Your task to perform on an android device: Find coffee shops on Maps Image 0: 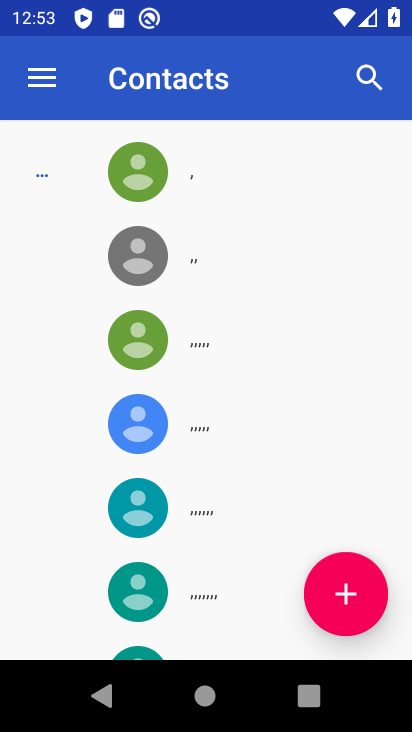
Step 0: press home button
Your task to perform on an android device: Find coffee shops on Maps Image 1: 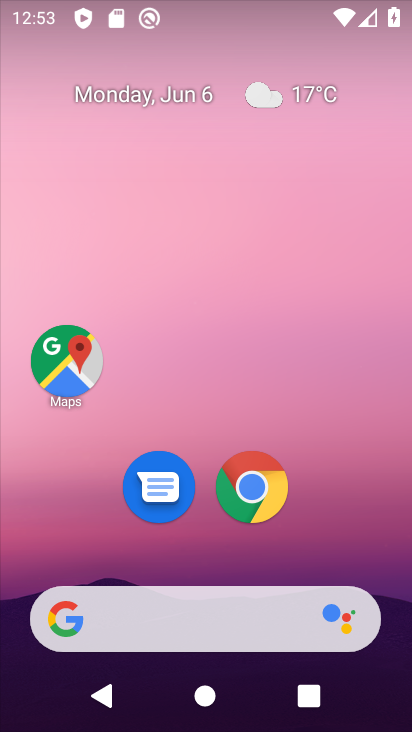
Step 1: click (84, 342)
Your task to perform on an android device: Find coffee shops on Maps Image 2: 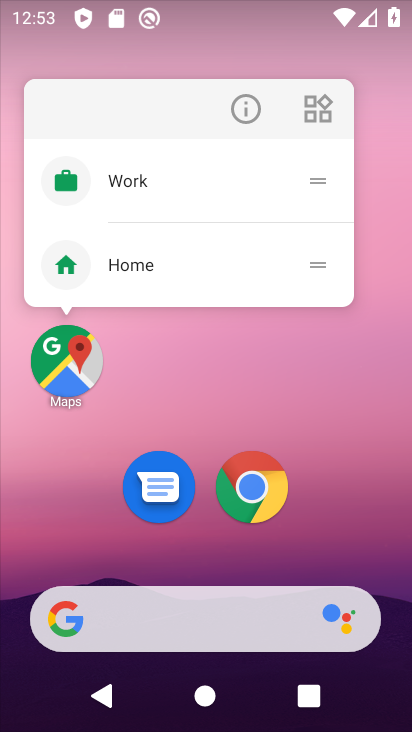
Step 2: click (65, 363)
Your task to perform on an android device: Find coffee shops on Maps Image 3: 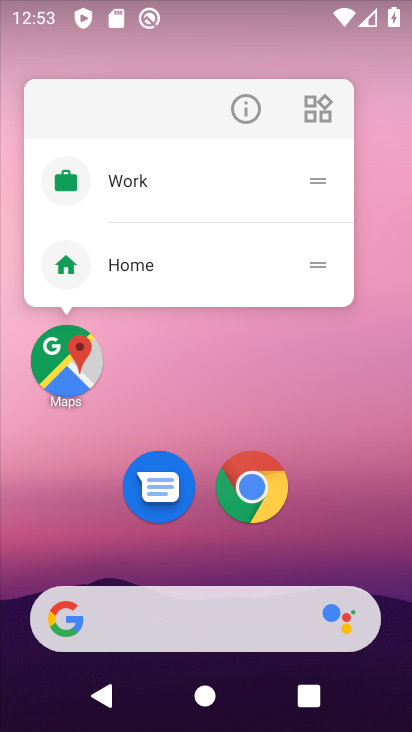
Step 3: click (64, 378)
Your task to perform on an android device: Find coffee shops on Maps Image 4: 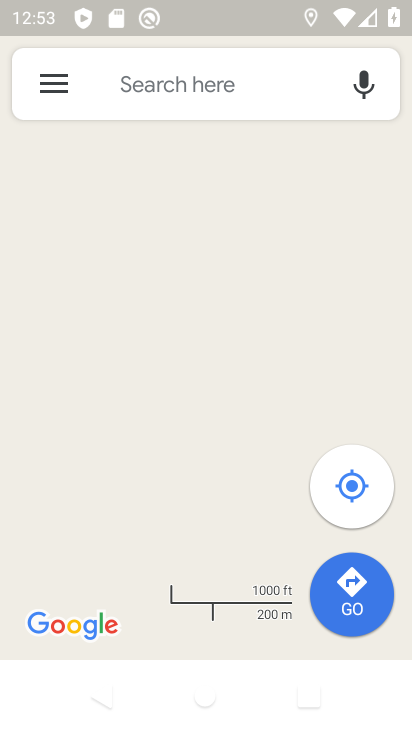
Step 4: click (164, 90)
Your task to perform on an android device: Find coffee shops on Maps Image 5: 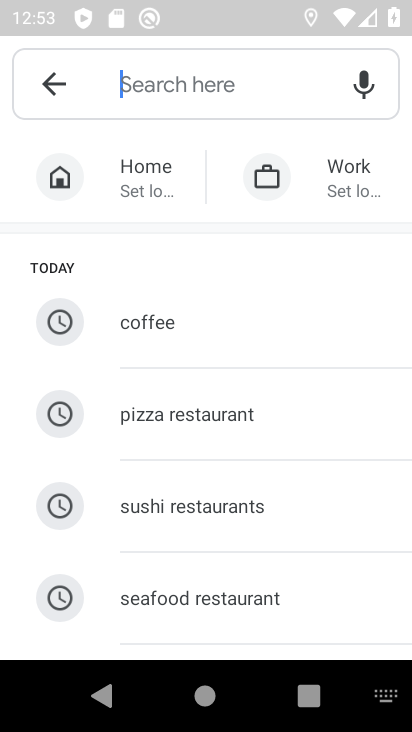
Step 5: type "Coffee shops"
Your task to perform on an android device: Find coffee shops on Maps Image 6: 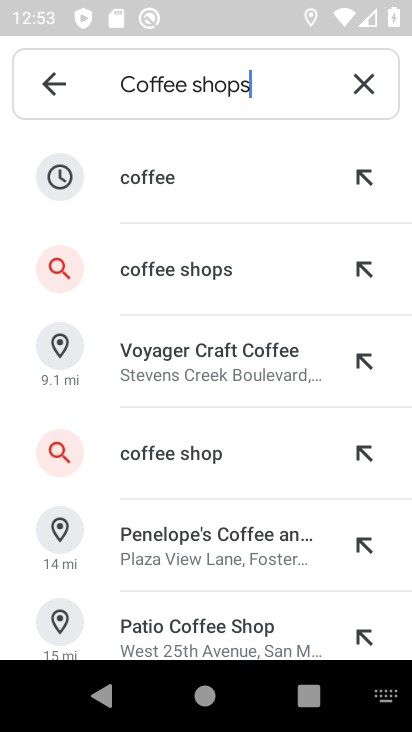
Step 6: click (244, 270)
Your task to perform on an android device: Find coffee shops on Maps Image 7: 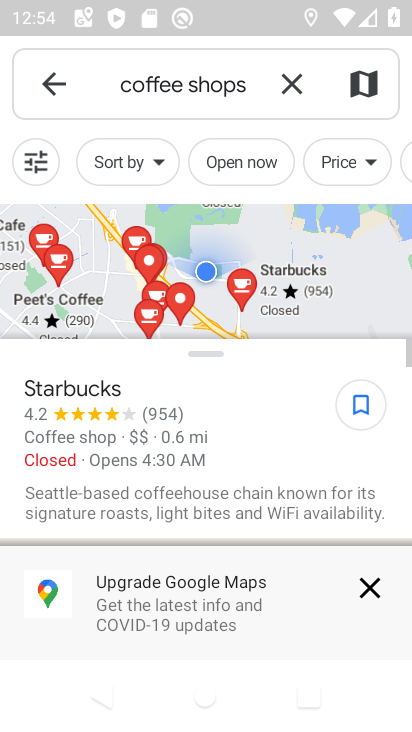
Step 7: click (374, 578)
Your task to perform on an android device: Find coffee shops on Maps Image 8: 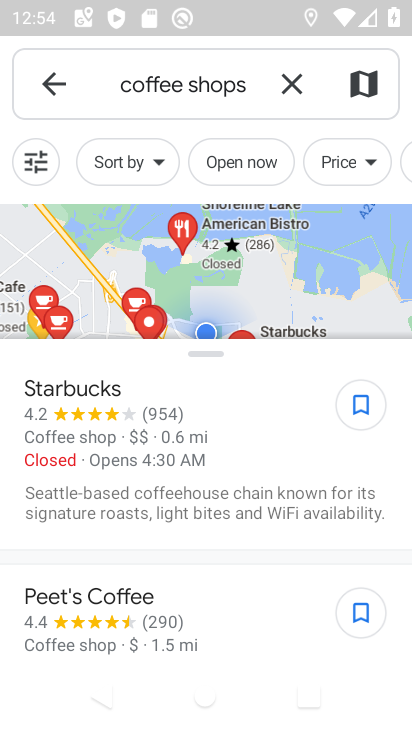
Step 8: task complete